Your task to perform on an android device: turn notification dots off Image 0: 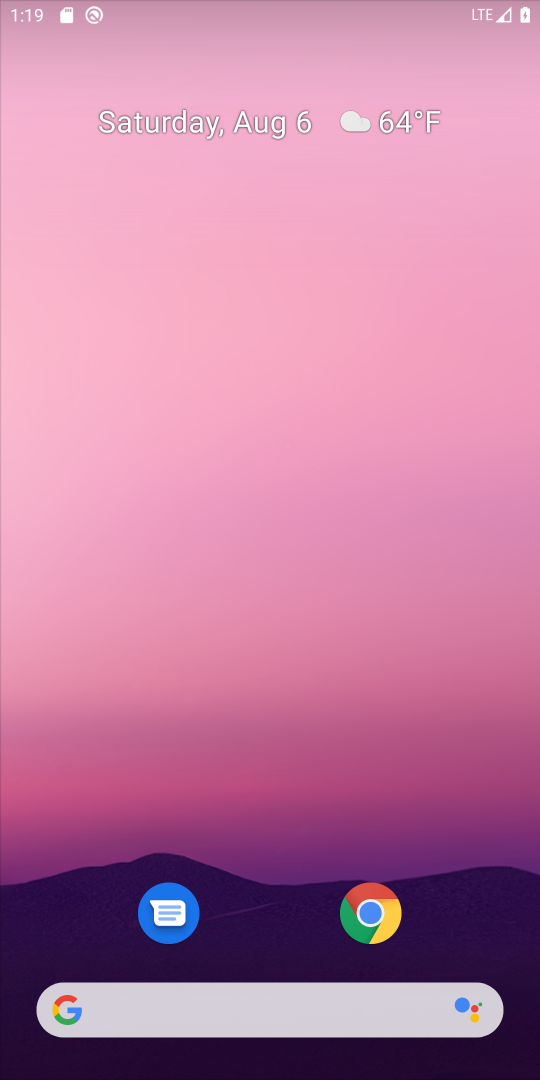
Step 0: press home button
Your task to perform on an android device: turn notification dots off Image 1: 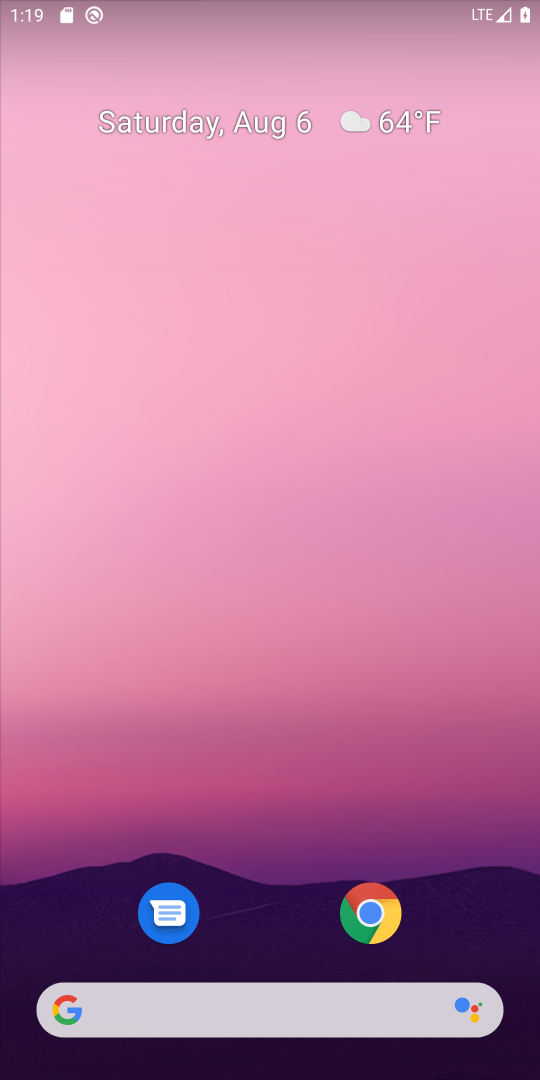
Step 1: drag from (269, 824) to (328, 276)
Your task to perform on an android device: turn notification dots off Image 2: 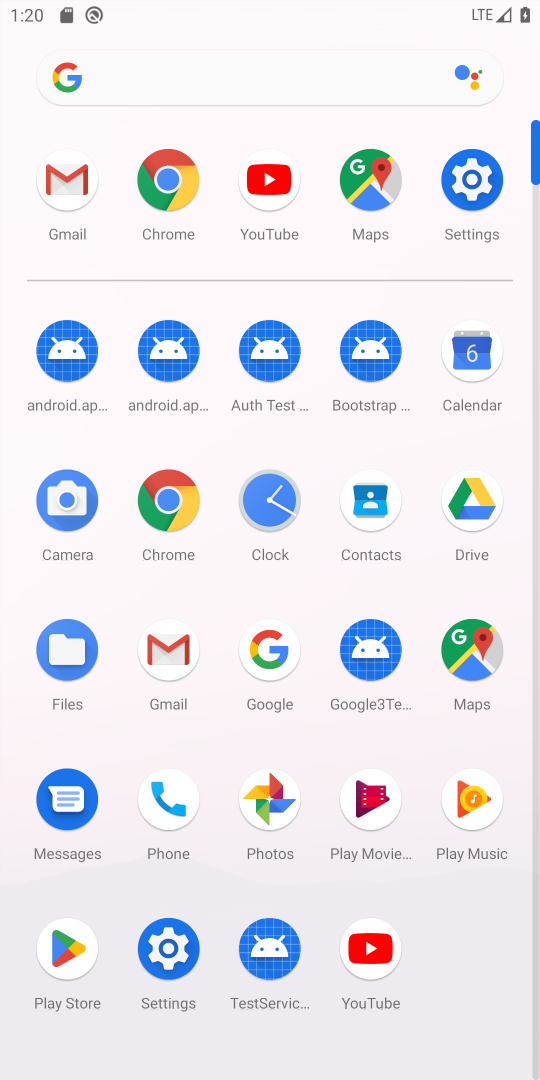
Step 2: click (472, 185)
Your task to perform on an android device: turn notification dots off Image 3: 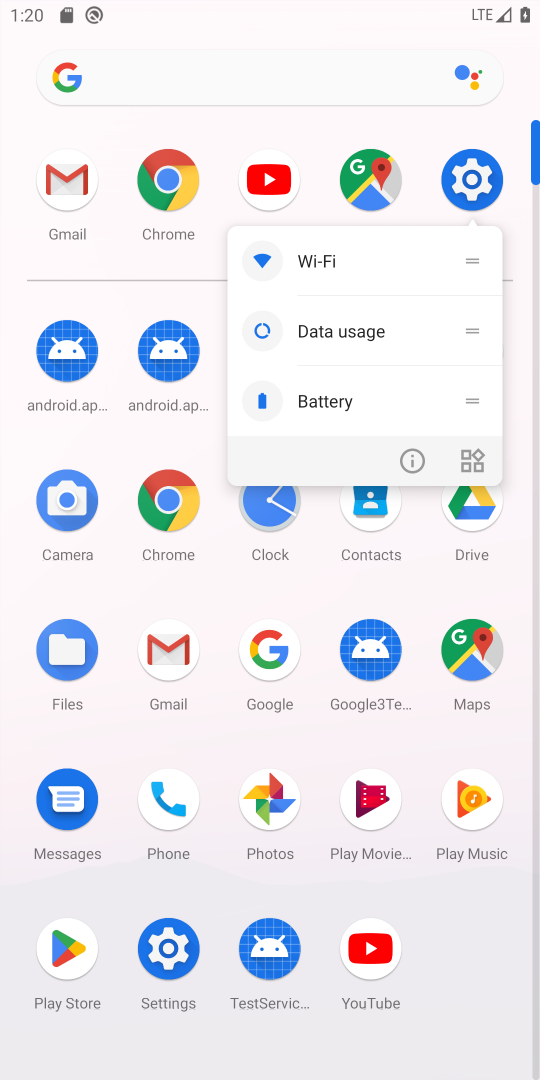
Step 3: click (472, 185)
Your task to perform on an android device: turn notification dots off Image 4: 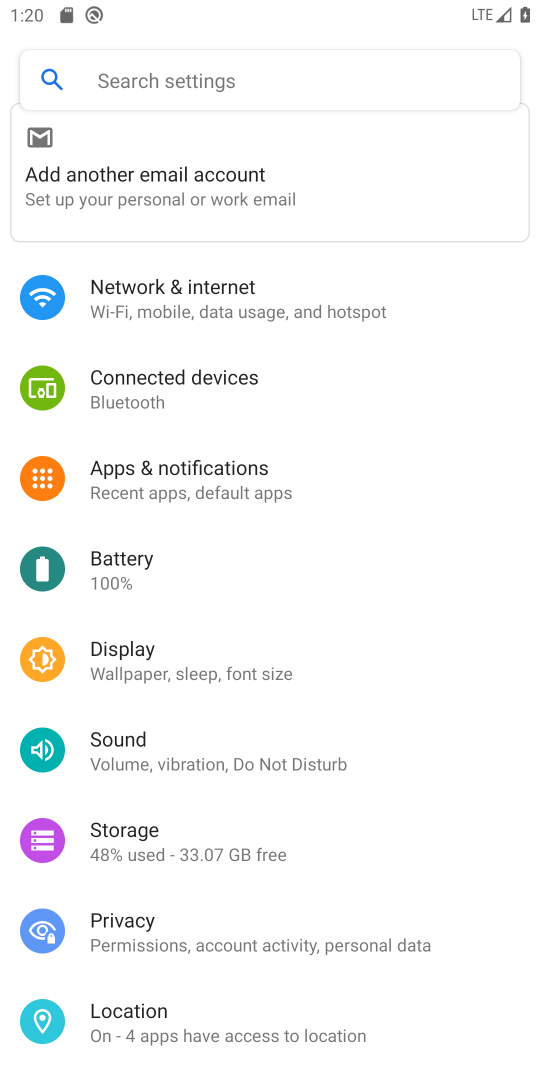
Step 4: drag from (452, 725) to (430, 534)
Your task to perform on an android device: turn notification dots off Image 5: 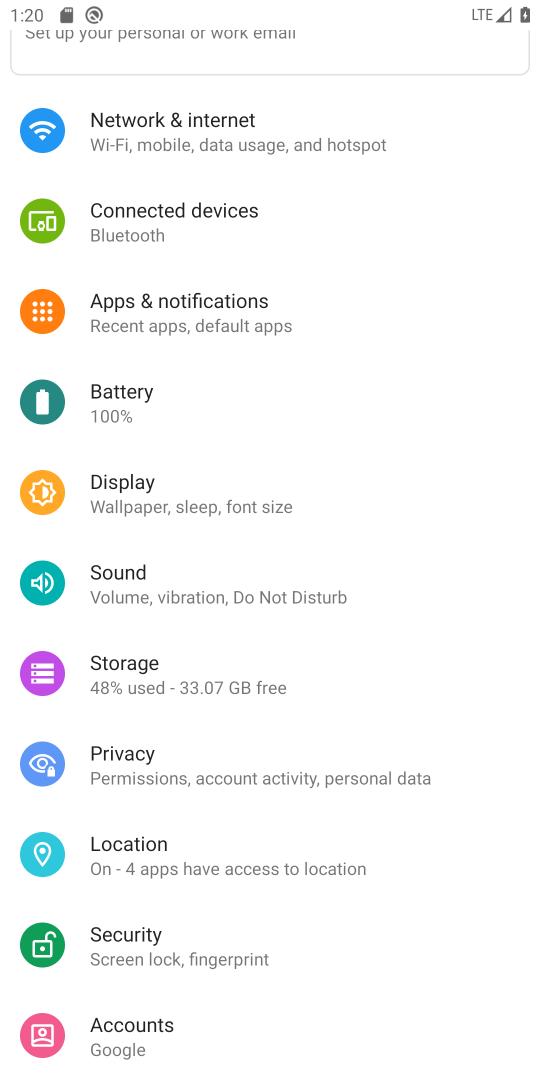
Step 5: drag from (447, 874) to (450, 604)
Your task to perform on an android device: turn notification dots off Image 6: 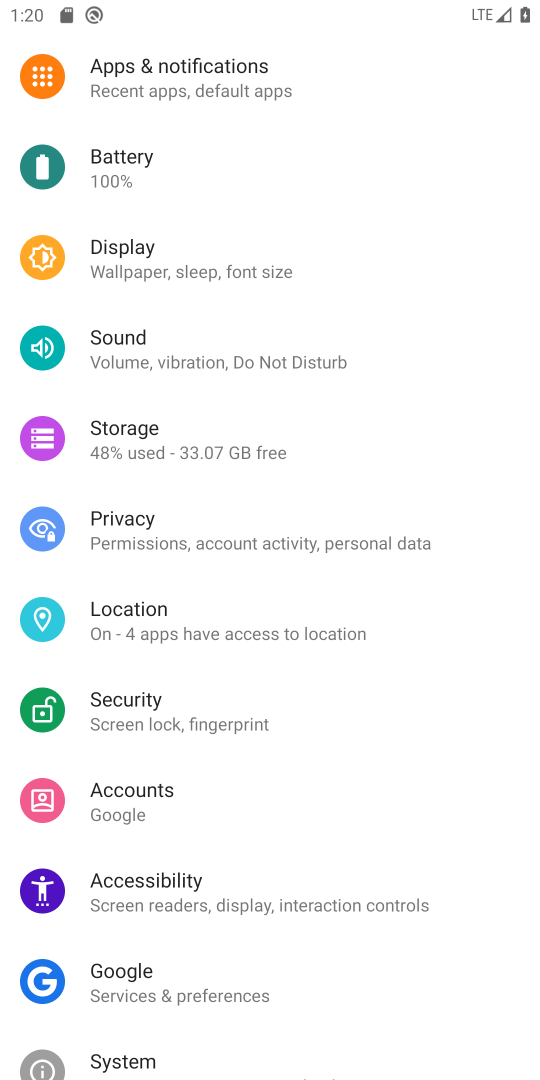
Step 6: drag from (459, 796) to (461, 630)
Your task to perform on an android device: turn notification dots off Image 7: 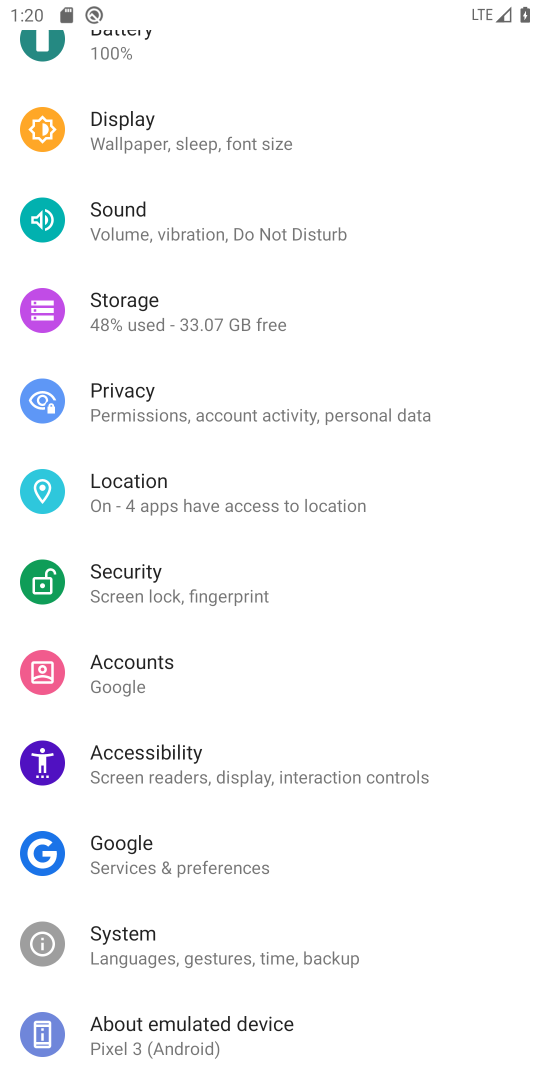
Step 7: drag from (458, 895) to (458, 686)
Your task to perform on an android device: turn notification dots off Image 8: 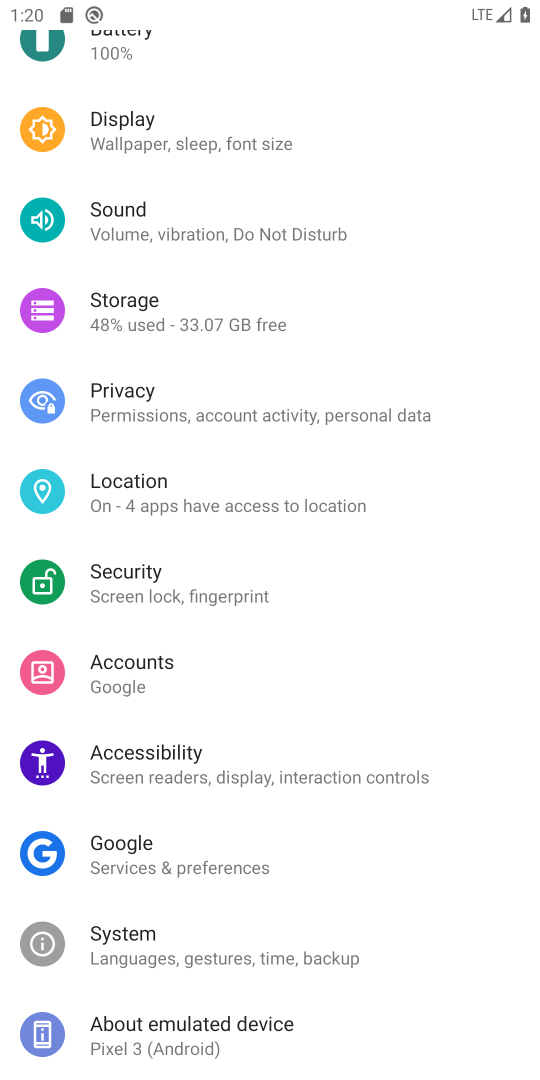
Step 8: drag from (465, 501) to (468, 650)
Your task to perform on an android device: turn notification dots off Image 9: 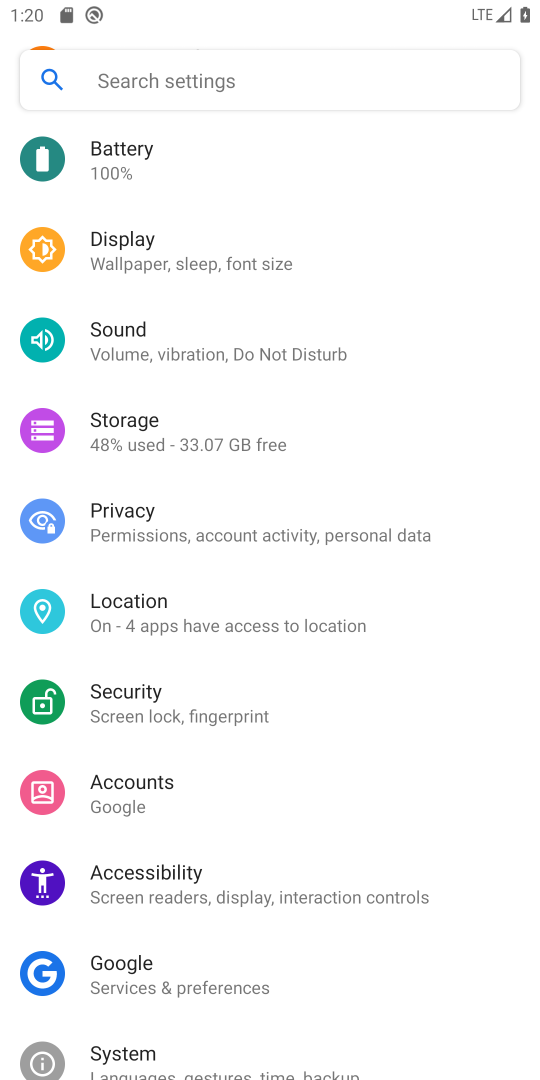
Step 9: drag from (469, 453) to (477, 612)
Your task to perform on an android device: turn notification dots off Image 10: 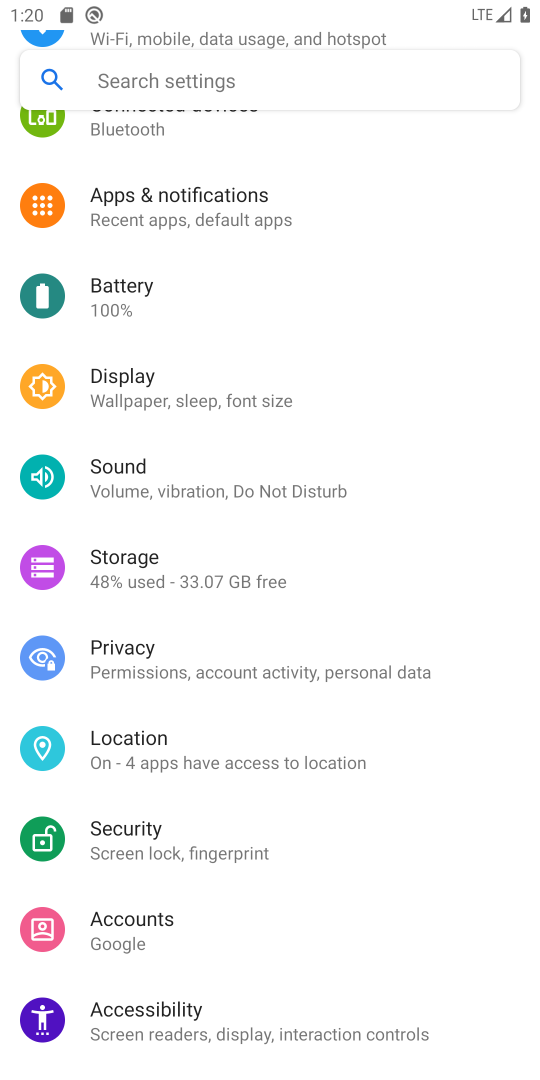
Step 10: drag from (460, 417) to (467, 572)
Your task to perform on an android device: turn notification dots off Image 11: 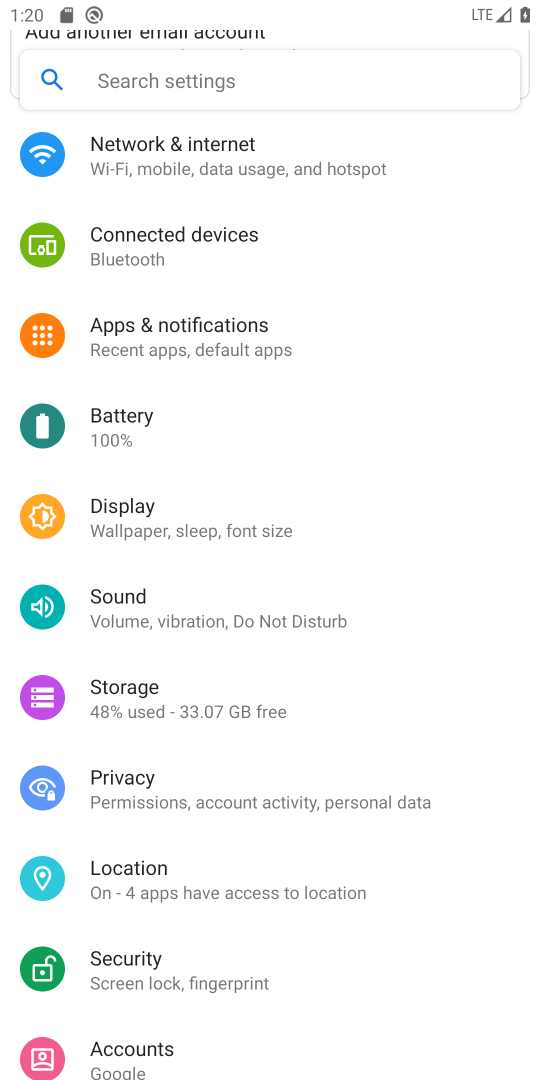
Step 11: drag from (446, 395) to (449, 570)
Your task to perform on an android device: turn notification dots off Image 12: 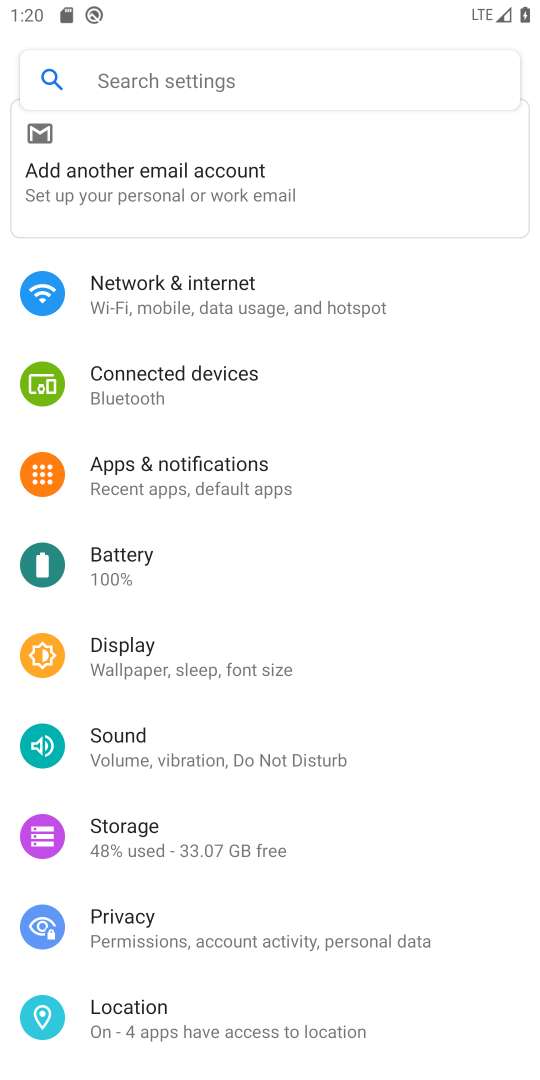
Step 12: drag from (464, 352) to (476, 551)
Your task to perform on an android device: turn notification dots off Image 13: 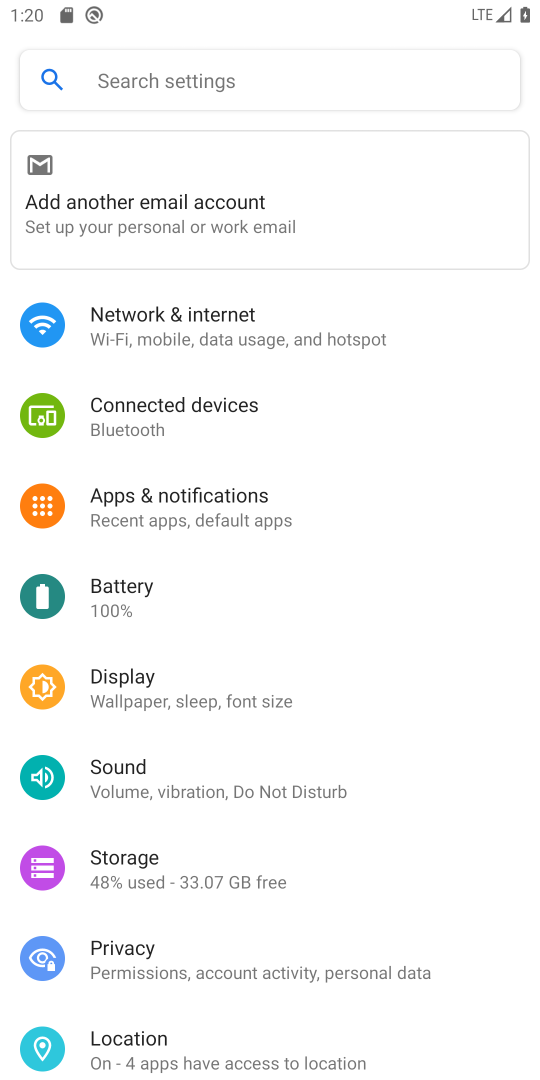
Step 13: drag from (423, 793) to (426, 652)
Your task to perform on an android device: turn notification dots off Image 14: 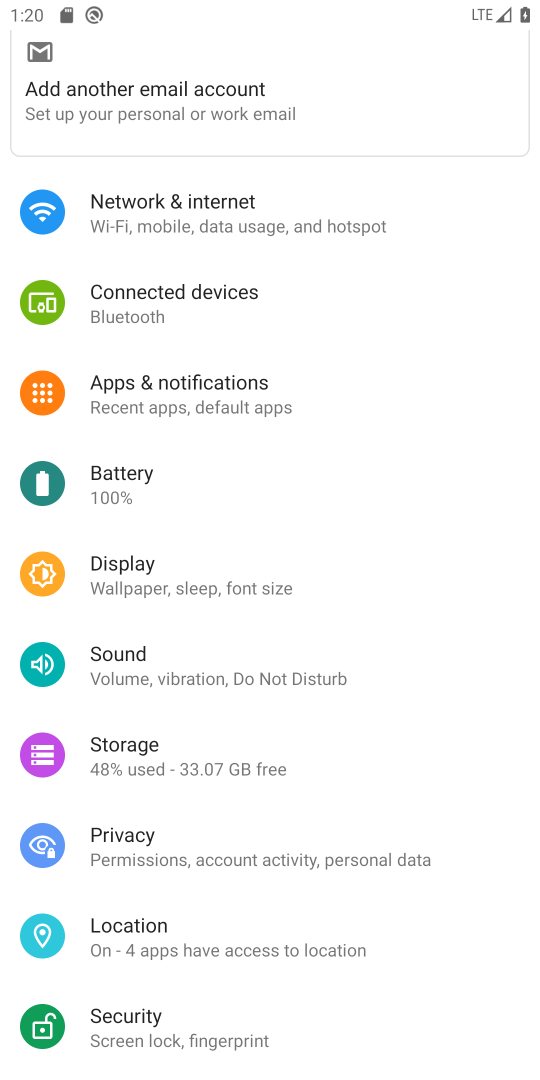
Step 14: click (258, 389)
Your task to perform on an android device: turn notification dots off Image 15: 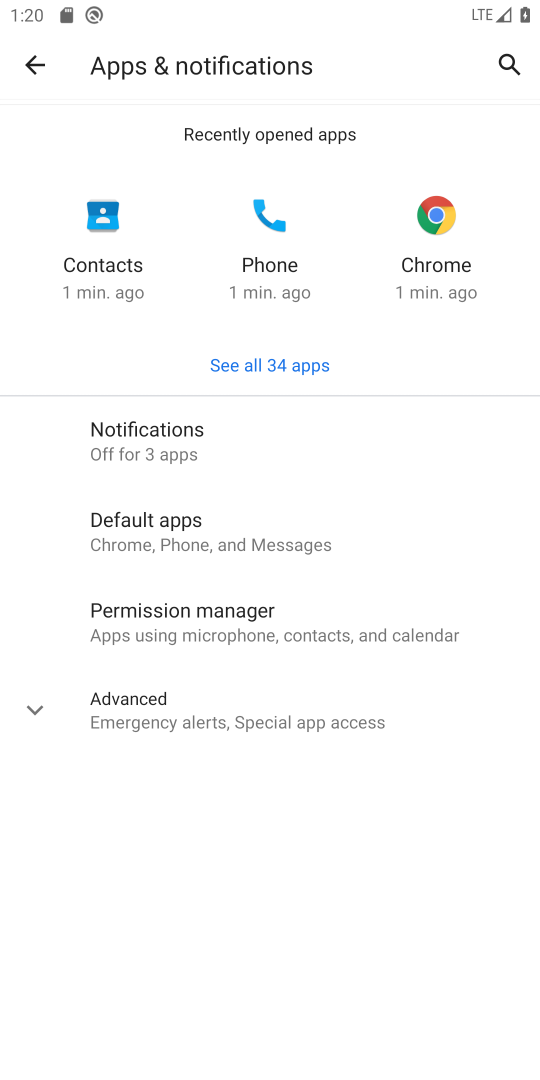
Step 15: click (194, 416)
Your task to perform on an android device: turn notification dots off Image 16: 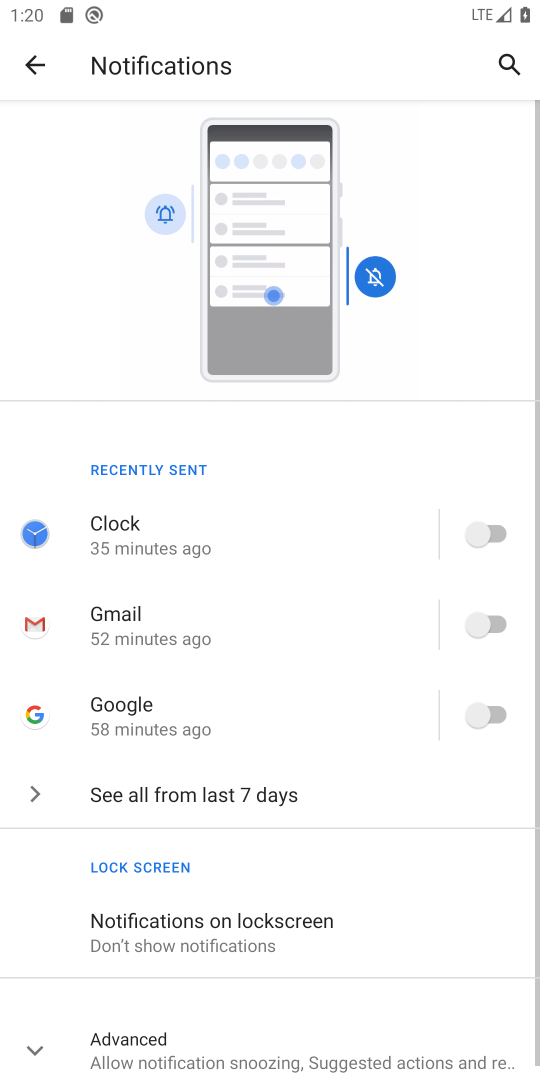
Step 16: drag from (314, 767) to (342, 537)
Your task to perform on an android device: turn notification dots off Image 17: 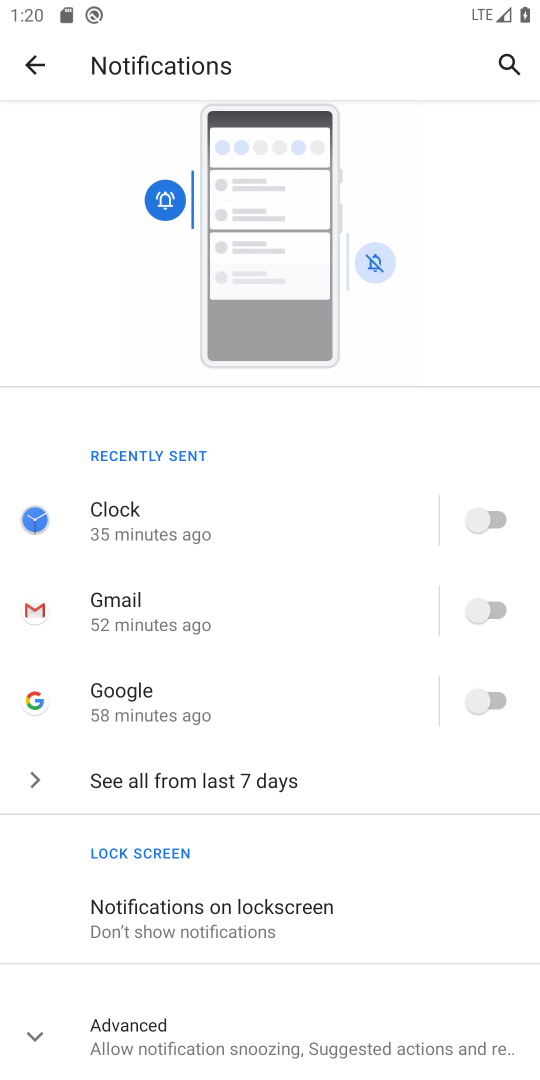
Step 17: click (310, 1033)
Your task to perform on an android device: turn notification dots off Image 18: 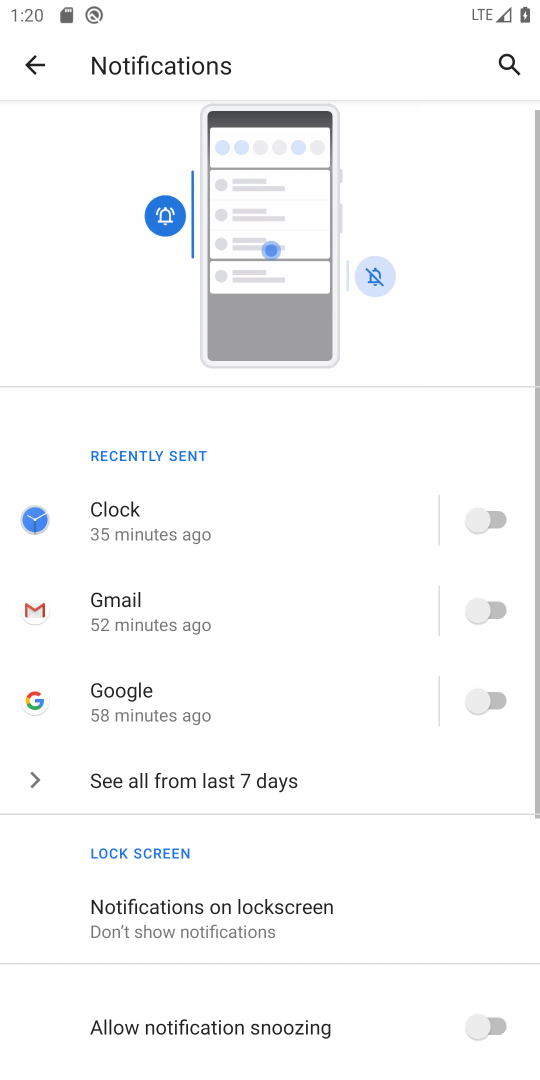
Step 18: drag from (368, 925) to (368, 614)
Your task to perform on an android device: turn notification dots off Image 19: 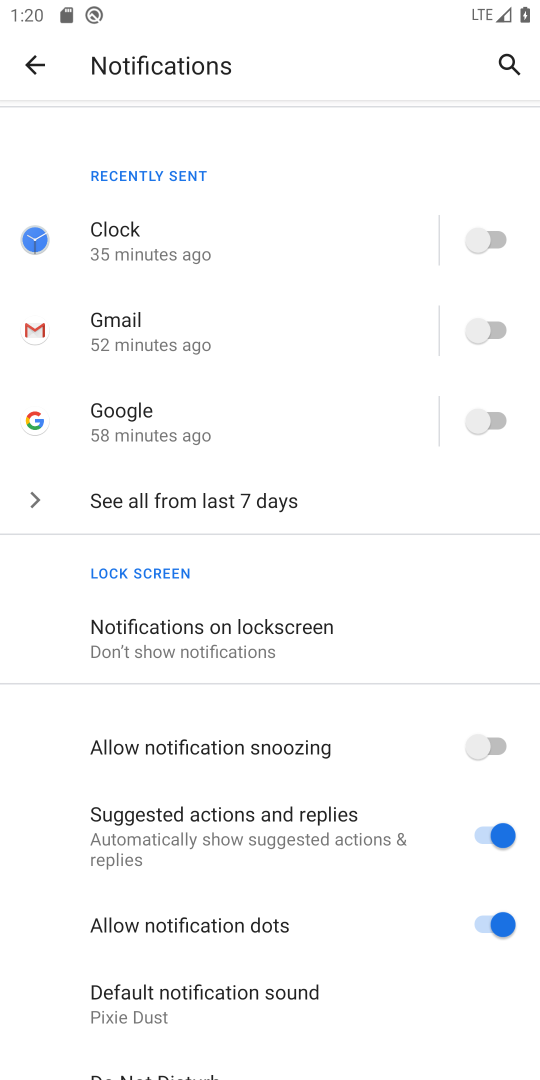
Step 19: drag from (371, 852) to (388, 650)
Your task to perform on an android device: turn notification dots off Image 20: 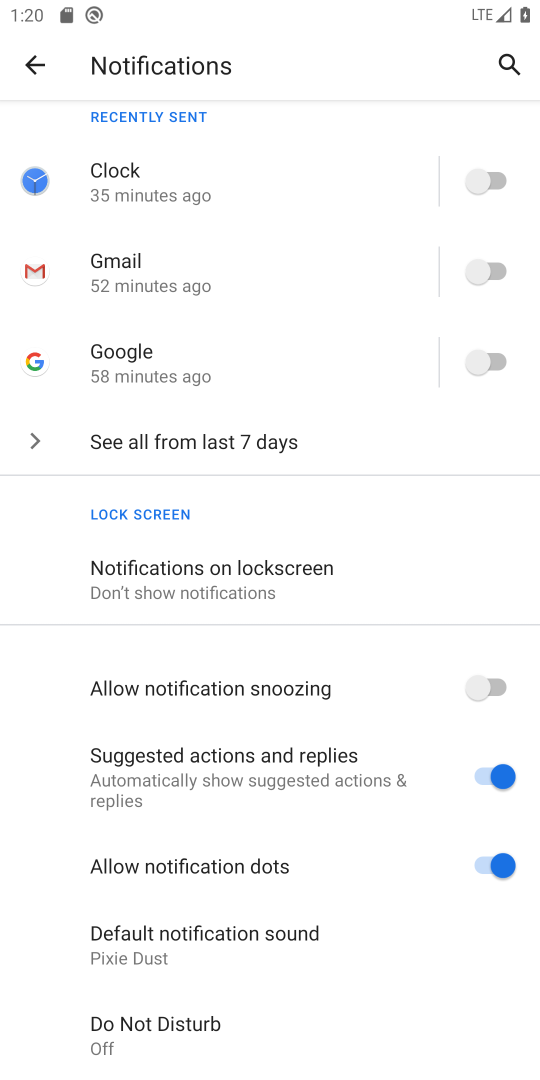
Step 20: click (500, 782)
Your task to perform on an android device: turn notification dots off Image 21: 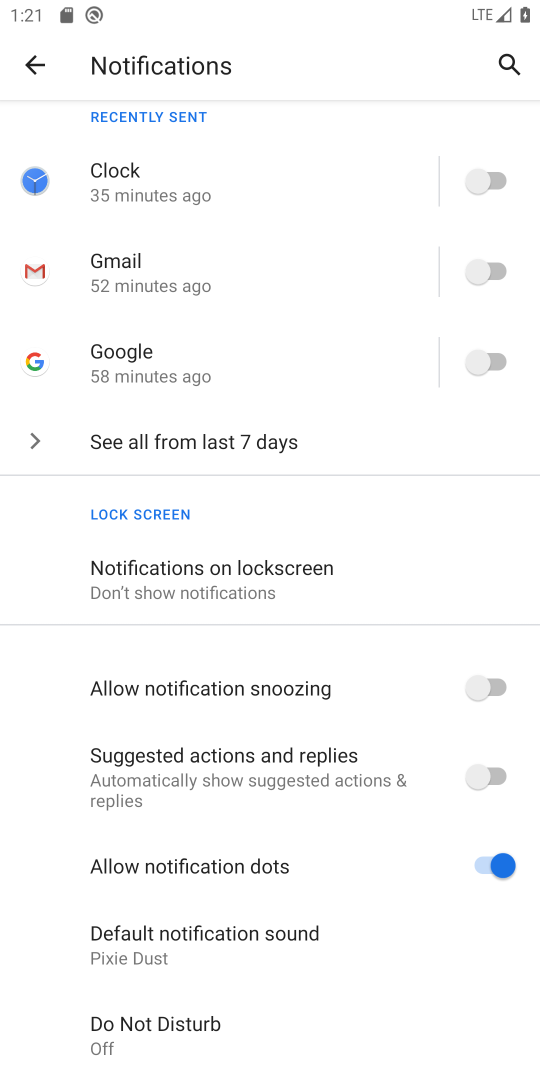
Step 21: task complete